Your task to perform on an android device: Open Google Chrome Image 0: 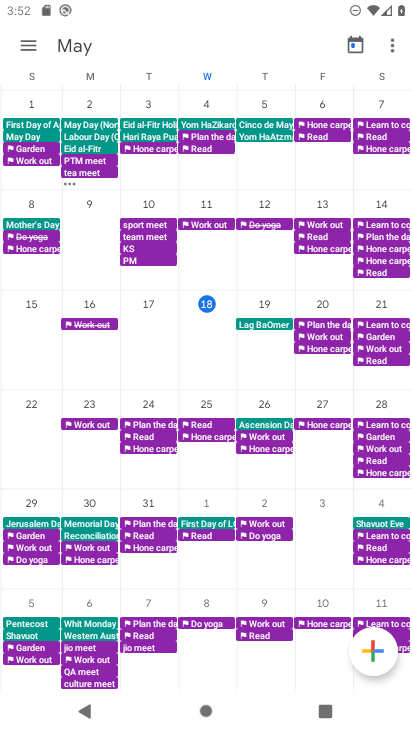
Step 0: drag from (237, 577) to (226, 197)
Your task to perform on an android device: Open Google Chrome Image 1: 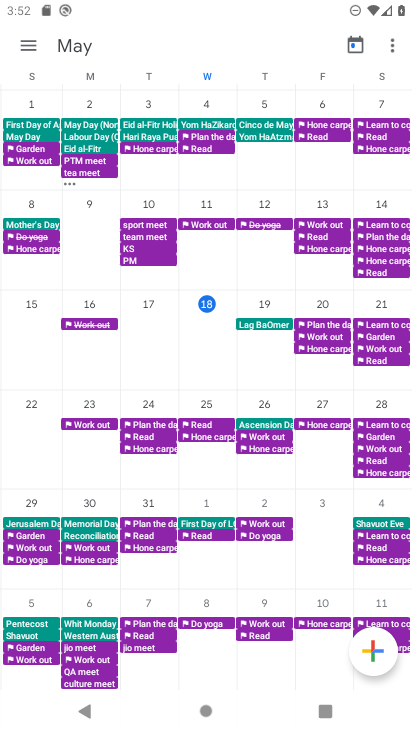
Step 1: press home button
Your task to perform on an android device: Open Google Chrome Image 2: 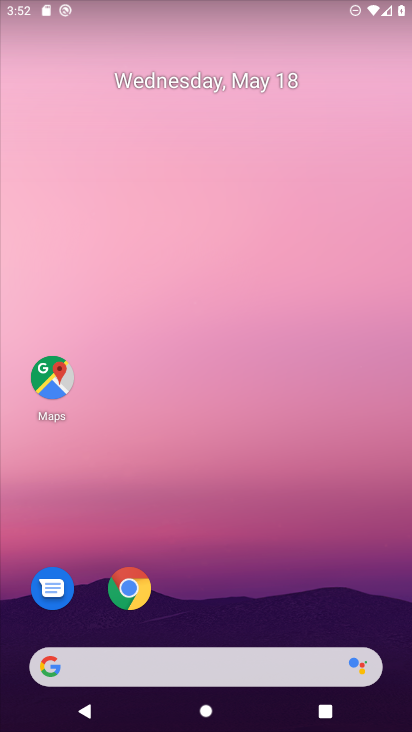
Step 2: click (126, 584)
Your task to perform on an android device: Open Google Chrome Image 3: 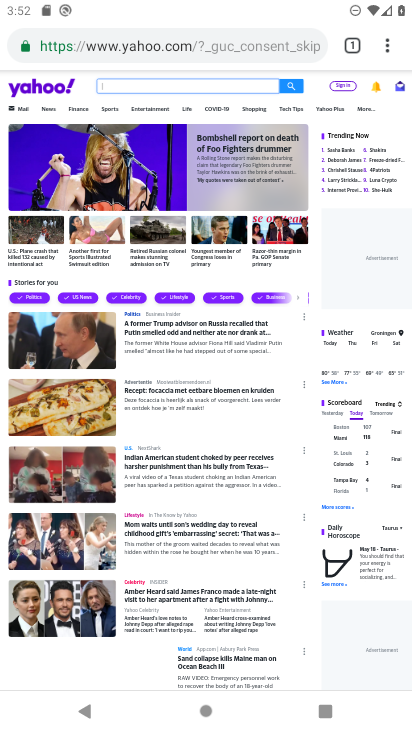
Step 3: click (203, 51)
Your task to perform on an android device: Open Google Chrome Image 4: 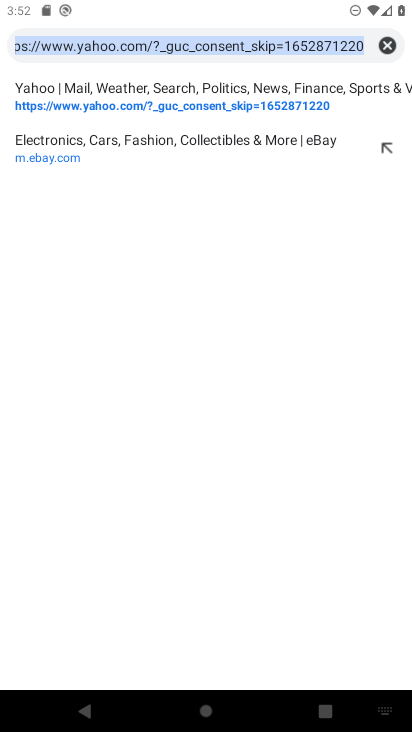
Step 4: task complete